Your task to perform on an android device: Open settings on Google Maps Image 0: 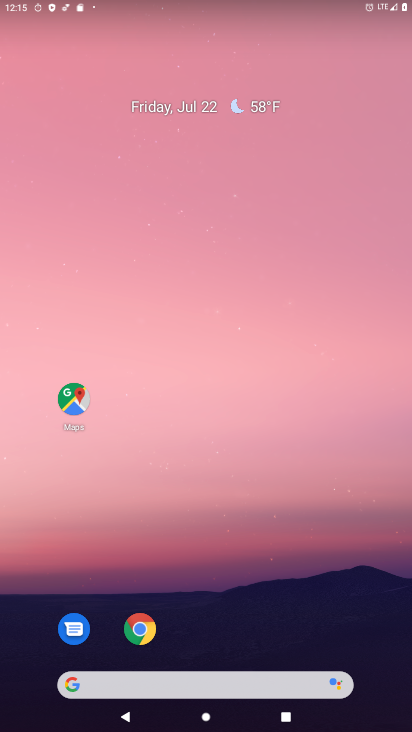
Step 0: drag from (359, 539) to (368, 42)
Your task to perform on an android device: Open settings on Google Maps Image 1: 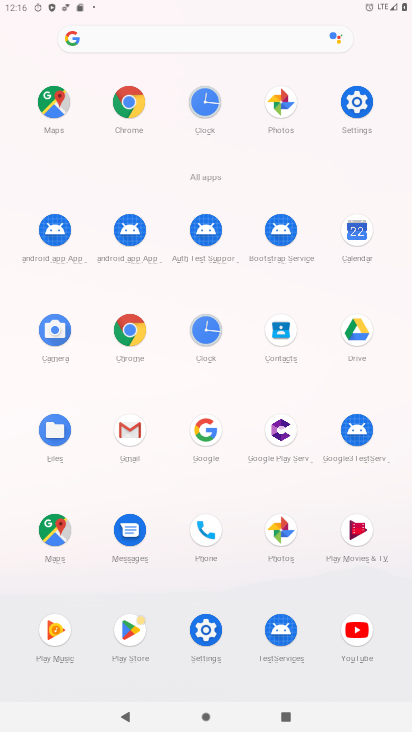
Step 1: click (58, 534)
Your task to perform on an android device: Open settings on Google Maps Image 2: 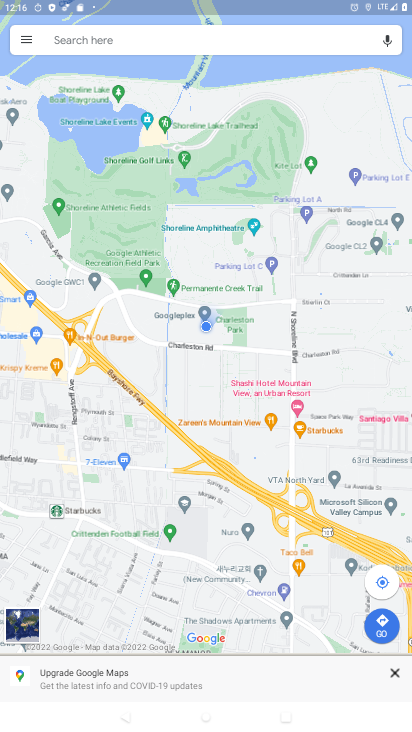
Step 2: click (26, 39)
Your task to perform on an android device: Open settings on Google Maps Image 3: 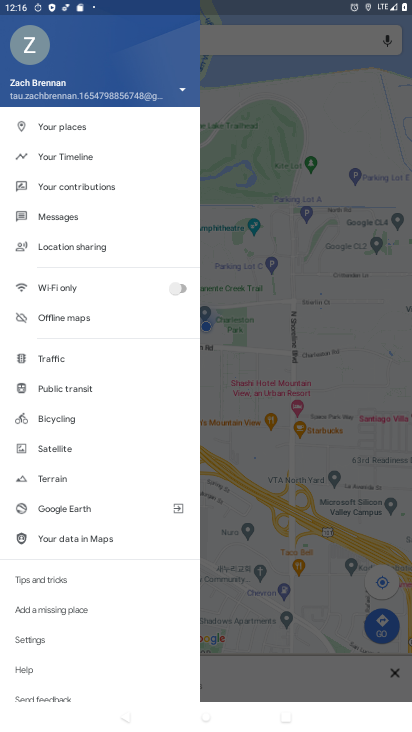
Step 3: click (51, 645)
Your task to perform on an android device: Open settings on Google Maps Image 4: 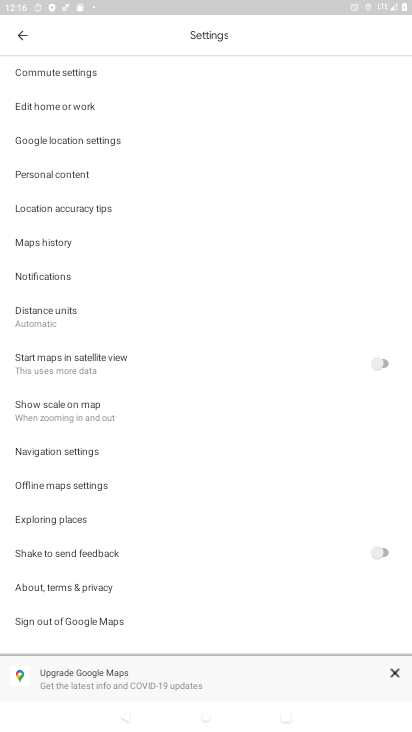
Step 4: task complete